Your task to perform on an android device: read, delete, or share a saved page in the chrome app Image 0: 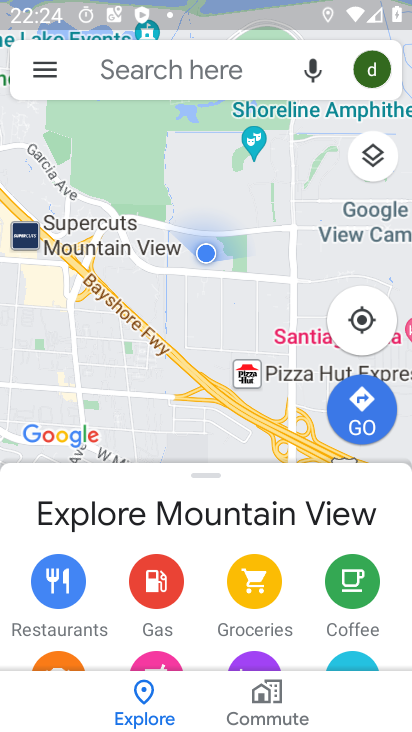
Step 0: press home button
Your task to perform on an android device: read, delete, or share a saved page in the chrome app Image 1: 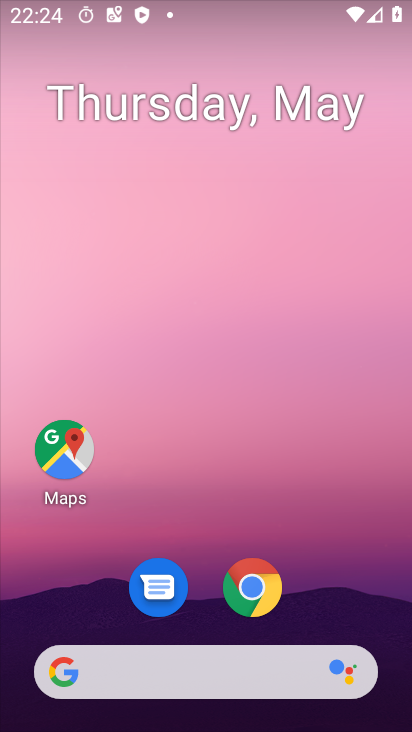
Step 1: click (254, 601)
Your task to perform on an android device: read, delete, or share a saved page in the chrome app Image 2: 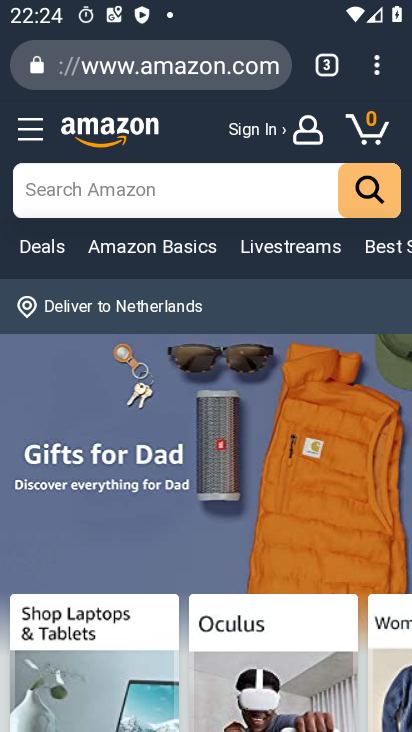
Step 2: click (377, 68)
Your task to perform on an android device: read, delete, or share a saved page in the chrome app Image 3: 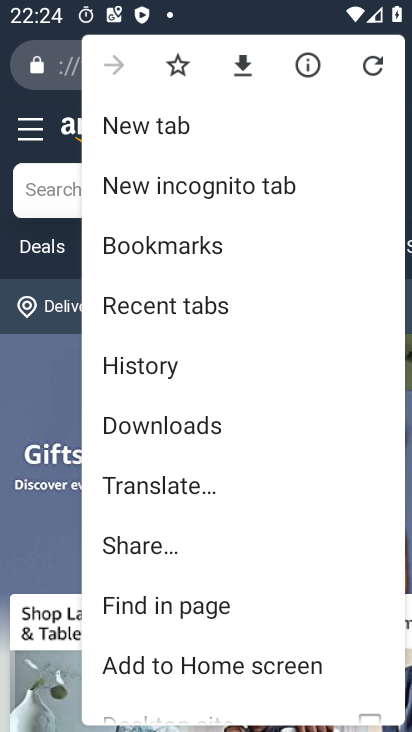
Step 3: click (169, 422)
Your task to perform on an android device: read, delete, or share a saved page in the chrome app Image 4: 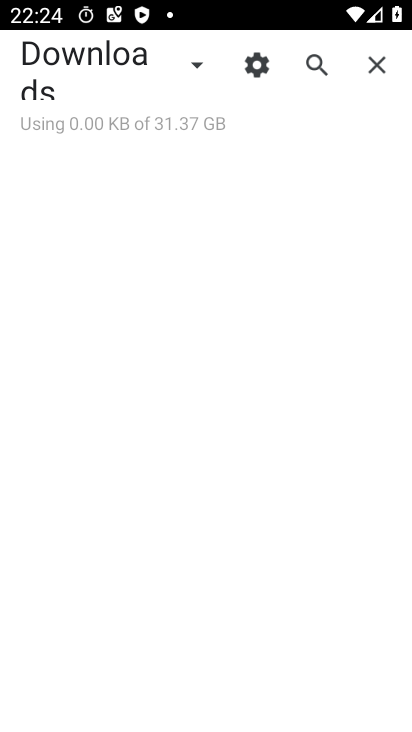
Step 4: click (194, 64)
Your task to perform on an android device: read, delete, or share a saved page in the chrome app Image 5: 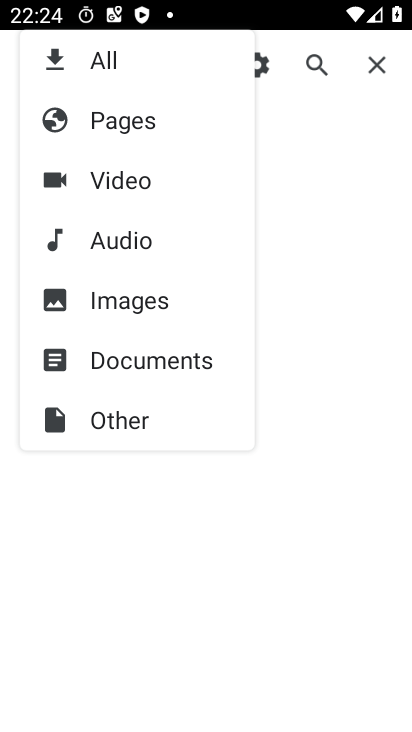
Step 5: click (133, 129)
Your task to perform on an android device: read, delete, or share a saved page in the chrome app Image 6: 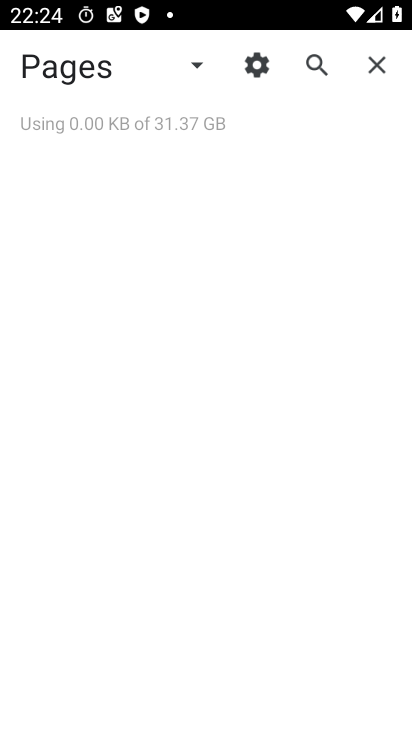
Step 6: task complete